Your task to perform on an android device: Empty the shopping cart on amazon. Add "macbook pro 15 inch" to the cart on amazon, then select checkout. Image 0: 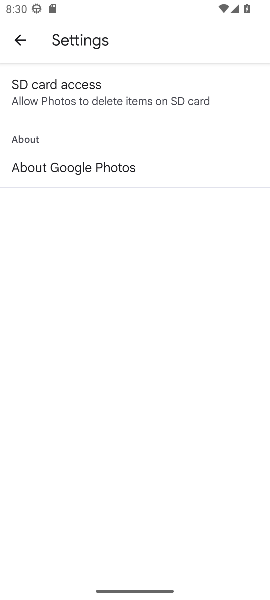
Step 0: press home button
Your task to perform on an android device: Empty the shopping cart on amazon. Add "macbook pro 15 inch" to the cart on amazon, then select checkout. Image 1: 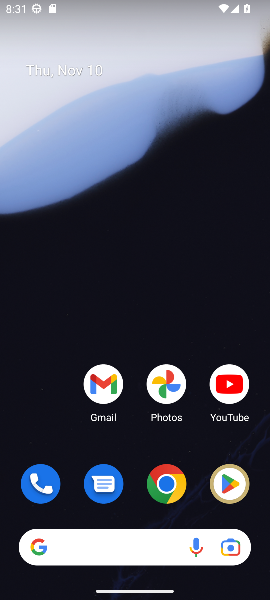
Step 1: click (165, 486)
Your task to perform on an android device: Empty the shopping cart on amazon. Add "macbook pro 15 inch" to the cart on amazon, then select checkout. Image 2: 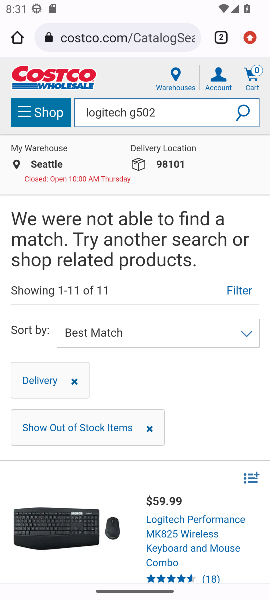
Step 2: click (126, 42)
Your task to perform on an android device: Empty the shopping cart on amazon. Add "macbook pro 15 inch" to the cart on amazon, then select checkout. Image 3: 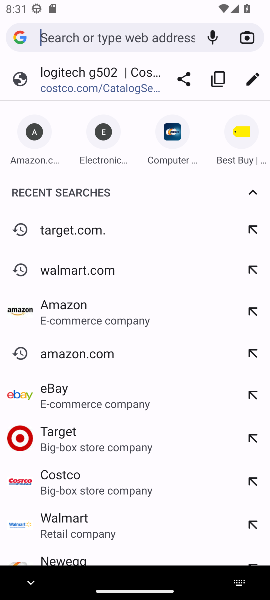
Step 3: click (41, 152)
Your task to perform on an android device: Empty the shopping cart on amazon. Add "macbook pro 15 inch" to the cart on amazon, then select checkout. Image 4: 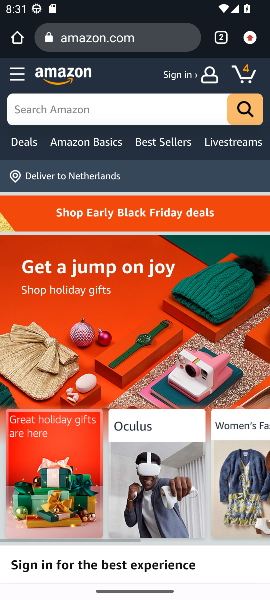
Step 4: click (240, 79)
Your task to perform on an android device: Empty the shopping cart on amazon. Add "macbook pro 15 inch" to the cart on amazon, then select checkout. Image 5: 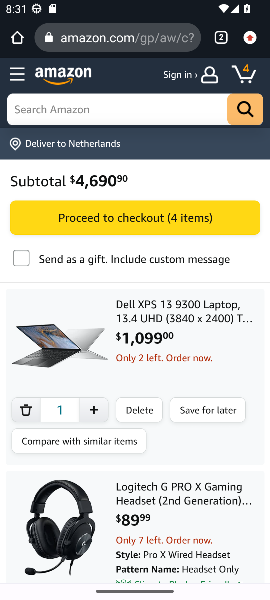
Step 5: click (143, 408)
Your task to perform on an android device: Empty the shopping cart on amazon. Add "macbook pro 15 inch" to the cart on amazon, then select checkout. Image 6: 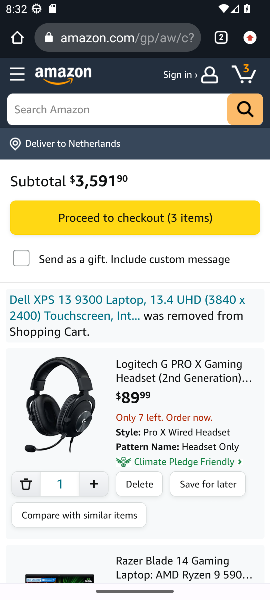
Step 6: click (142, 482)
Your task to perform on an android device: Empty the shopping cart on amazon. Add "macbook pro 15 inch" to the cart on amazon, then select checkout. Image 7: 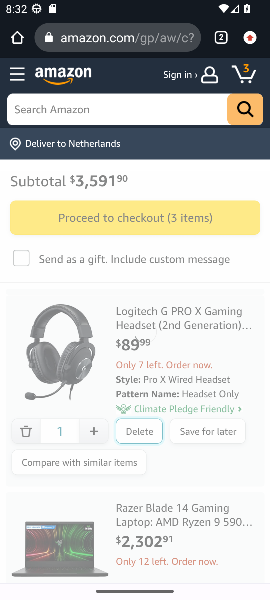
Step 7: drag from (163, 456) to (180, 341)
Your task to perform on an android device: Empty the shopping cart on amazon. Add "macbook pro 15 inch" to the cart on amazon, then select checkout. Image 8: 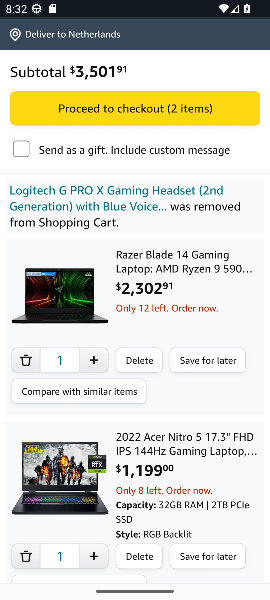
Step 8: click (138, 360)
Your task to perform on an android device: Empty the shopping cart on amazon. Add "macbook pro 15 inch" to the cart on amazon, then select checkout. Image 9: 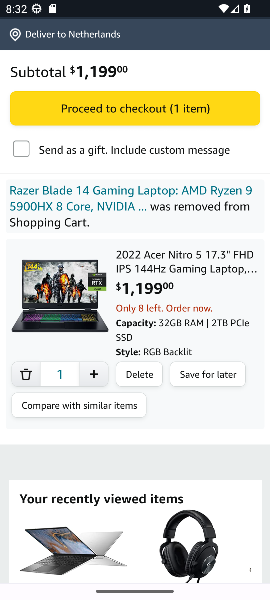
Step 9: click (143, 374)
Your task to perform on an android device: Empty the shopping cart on amazon. Add "macbook pro 15 inch" to the cart on amazon, then select checkout. Image 10: 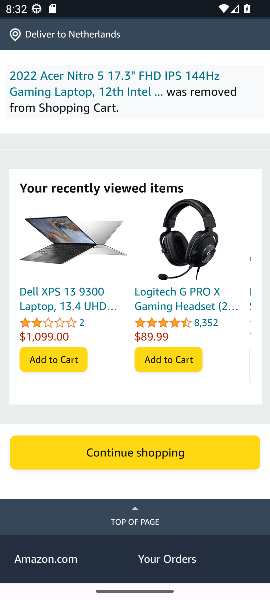
Step 10: drag from (106, 307) to (128, 478)
Your task to perform on an android device: Empty the shopping cart on amazon. Add "macbook pro 15 inch" to the cart on amazon, then select checkout. Image 11: 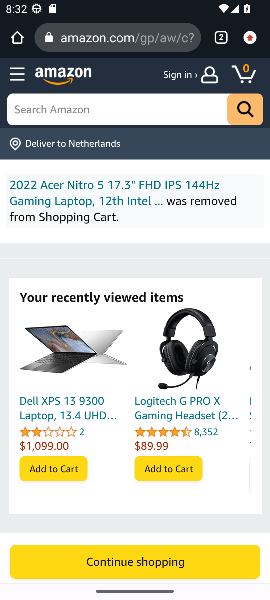
Step 11: click (91, 104)
Your task to perform on an android device: Empty the shopping cart on amazon. Add "macbook pro 15 inch" to the cart on amazon, then select checkout. Image 12: 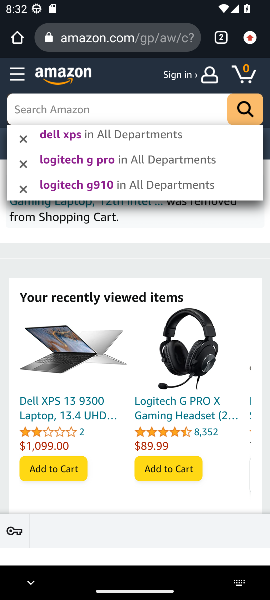
Step 12: type "macbook pro 15 inch"
Your task to perform on an android device: Empty the shopping cart on amazon. Add "macbook pro 15 inch" to the cart on amazon, then select checkout. Image 13: 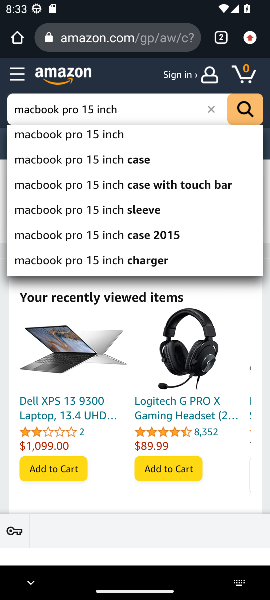
Step 13: click (79, 139)
Your task to perform on an android device: Empty the shopping cart on amazon. Add "macbook pro 15 inch" to the cart on amazon, then select checkout. Image 14: 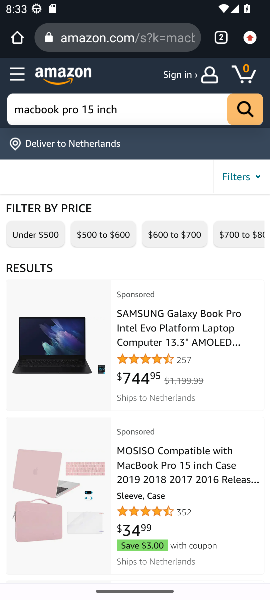
Step 14: drag from (84, 444) to (98, 328)
Your task to perform on an android device: Empty the shopping cart on amazon. Add "macbook pro 15 inch" to the cart on amazon, then select checkout. Image 15: 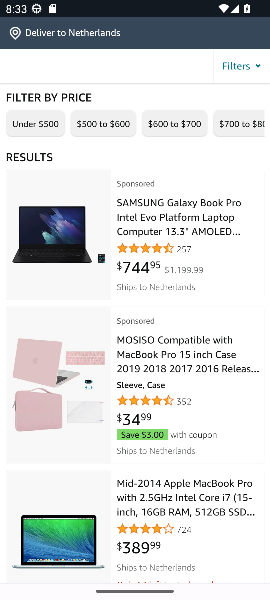
Step 15: click (56, 406)
Your task to perform on an android device: Empty the shopping cart on amazon. Add "macbook pro 15 inch" to the cart on amazon, then select checkout. Image 16: 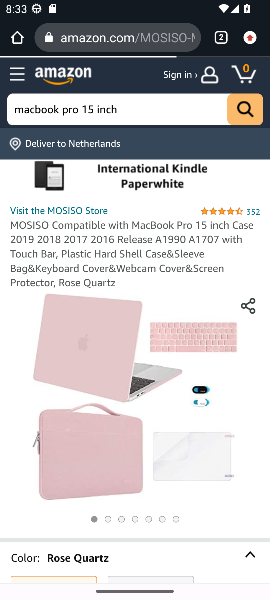
Step 16: drag from (108, 469) to (120, 169)
Your task to perform on an android device: Empty the shopping cart on amazon. Add "macbook pro 15 inch" to the cart on amazon, then select checkout. Image 17: 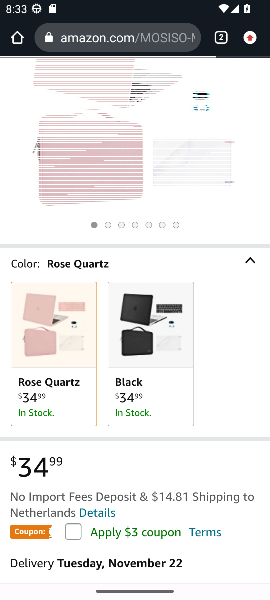
Step 17: drag from (125, 396) to (119, 155)
Your task to perform on an android device: Empty the shopping cart on amazon. Add "macbook pro 15 inch" to the cart on amazon, then select checkout. Image 18: 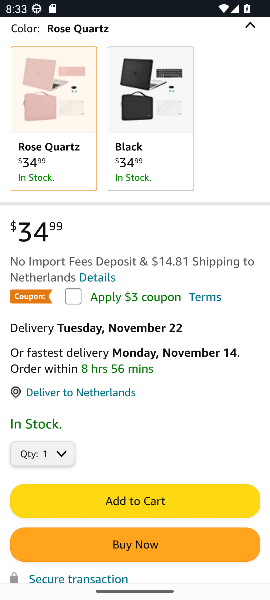
Step 18: click (139, 494)
Your task to perform on an android device: Empty the shopping cart on amazon. Add "macbook pro 15 inch" to the cart on amazon, then select checkout. Image 19: 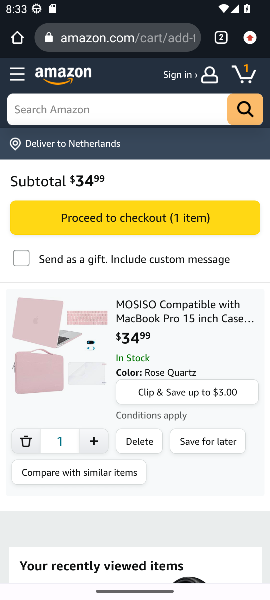
Step 19: click (101, 221)
Your task to perform on an android device: Empty the shopping cart on amazon. Add "macbook pro 15 inch" to the cart on amazon, then select checkout. Image 20: 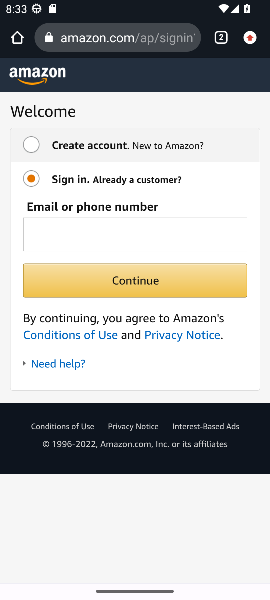
Step 20: task complete